Your task to perform on an android device: Go to Google Image 0: 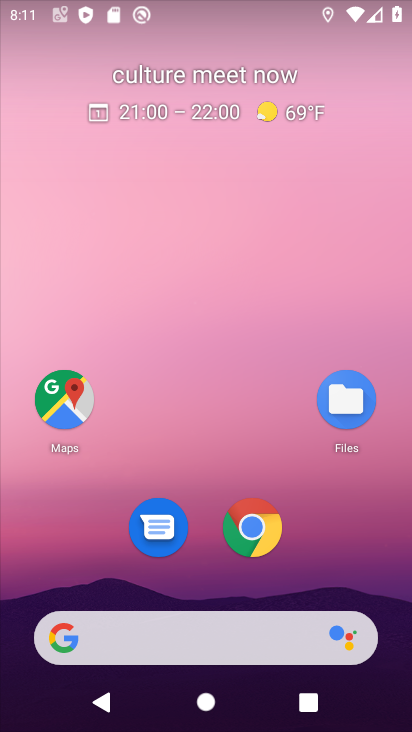
Step 0: drag from (209, 578) to (198, 120)
Your task to perform on an android device: Go to Google Image 1: 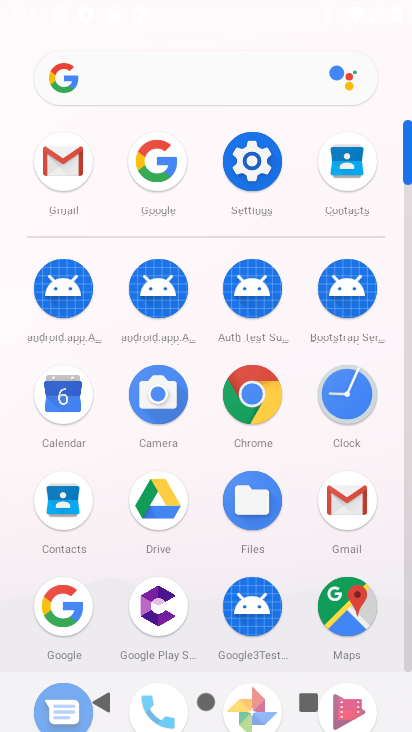
Step 1: click (153, 164)
Your task to perform on an android device: Go to Google Image 2: 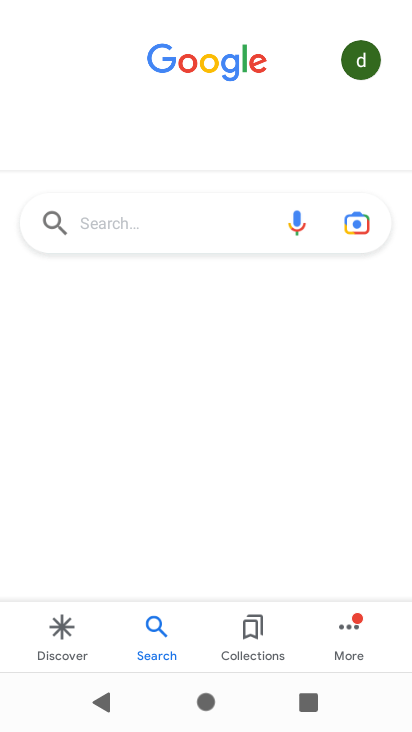
Step 2: task complete